Your task to perform on an android device: turn off priority inbox in the gmail app Image 0: 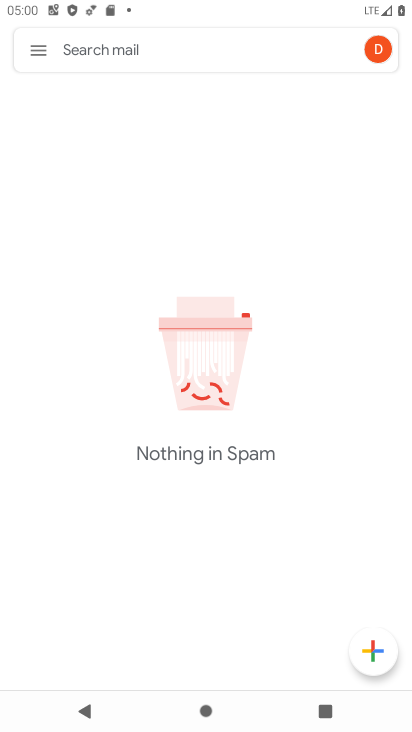
Step 0: press back button
Your task to perform on an android device: turn off priority inbox in the gmail app Image 1: 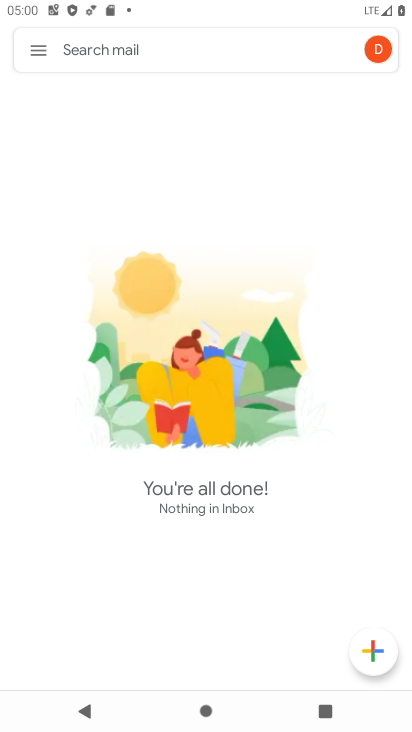
Step 1: press back button
Your task to perform on an android device: turn off priority inbox in the gmail app Image 2: 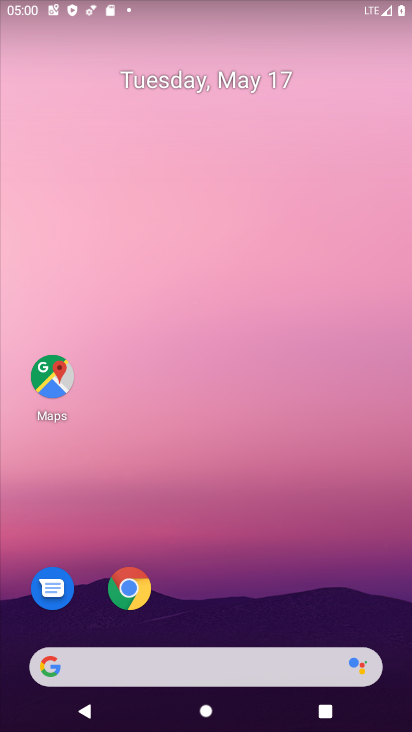
Step 2: drag from (261, 596) to (188, 86)
Your task to perform on an android device: turn off priority inbox in the gmail app Image 3: 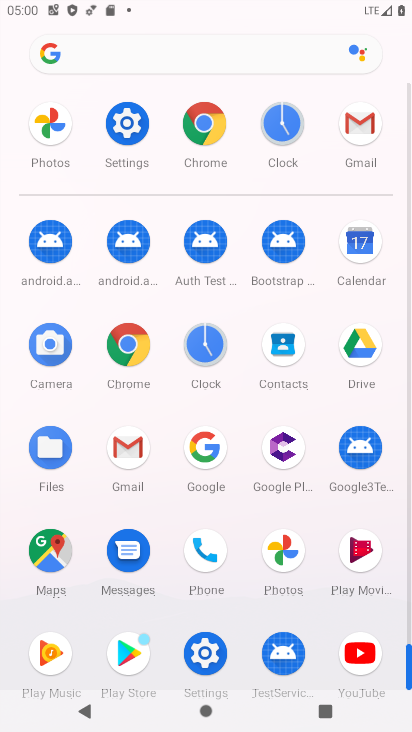
Step 3: click (358, 124)
Your task to perform on an android device: turn off priority inbox in the gmail app Image 4: 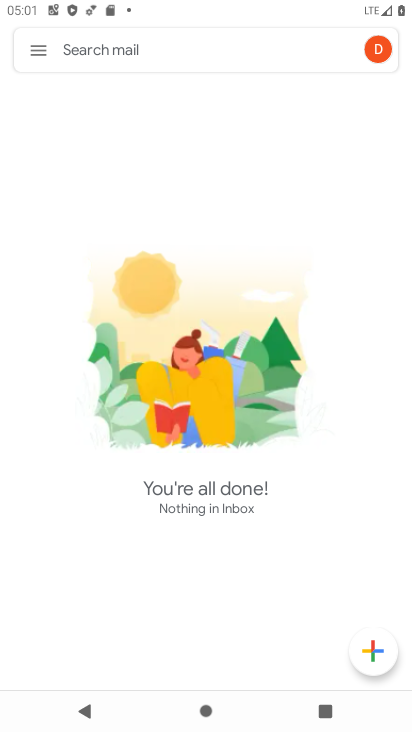
Step 4: click (41, 49)
Your task to perform on an android device: turn off priority inbox in the gmail app Image 5: 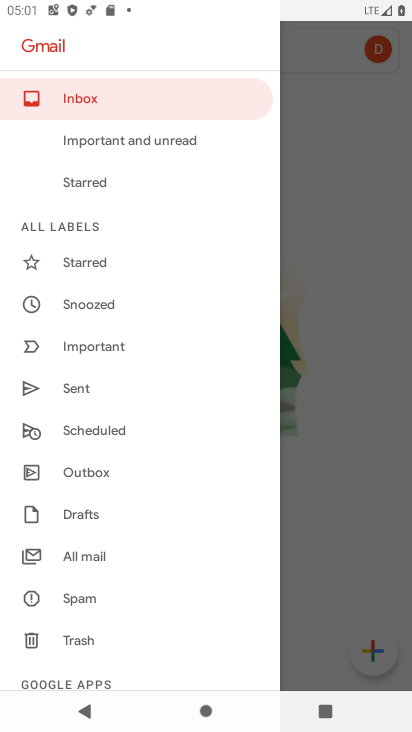
Step 5: drag from (114, 608) to (138, 541)
Your task to perform on an android device: turn off priority inbox in the gmail app Image 6: 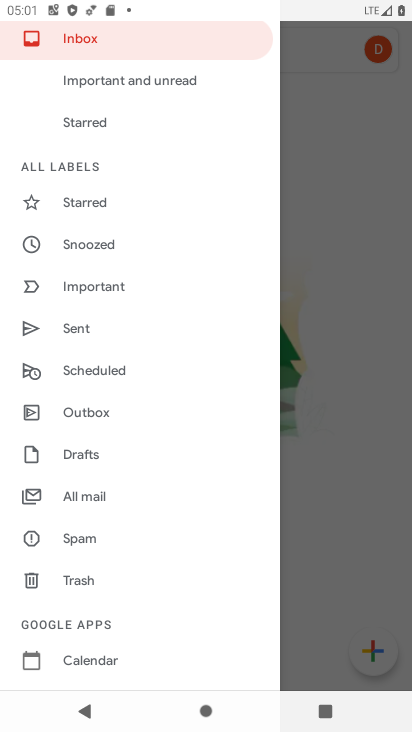
Step 6: drag from (101, 609) to (138, 546)
Your task to perform on an android device: turn off priority inbox in the gmail app Image 7: 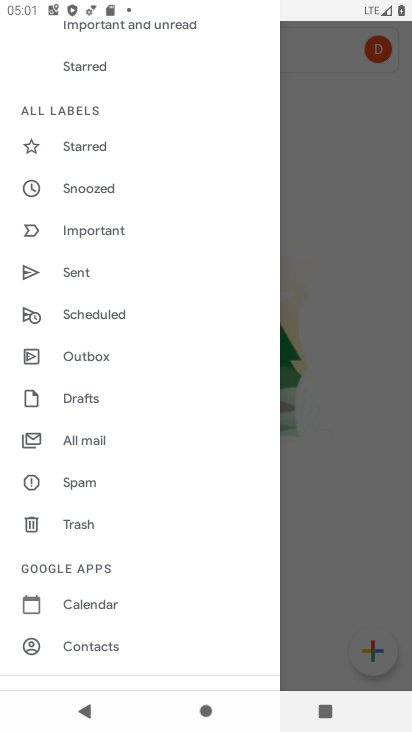
Step 7: drag from (111, 627) to (141, 570)
Your task to perform on an android device: turn off priority inbox in the gmail app Image 8: 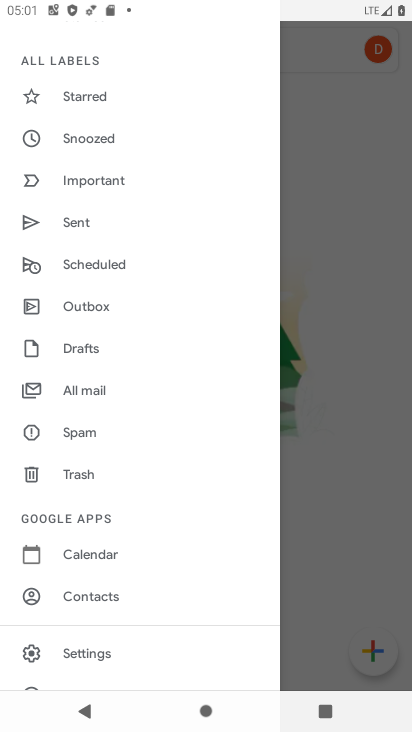
Step 8: click (93, 653)
Your task to perform on an android device: turn off priority inbox in the gmail app Image 9: 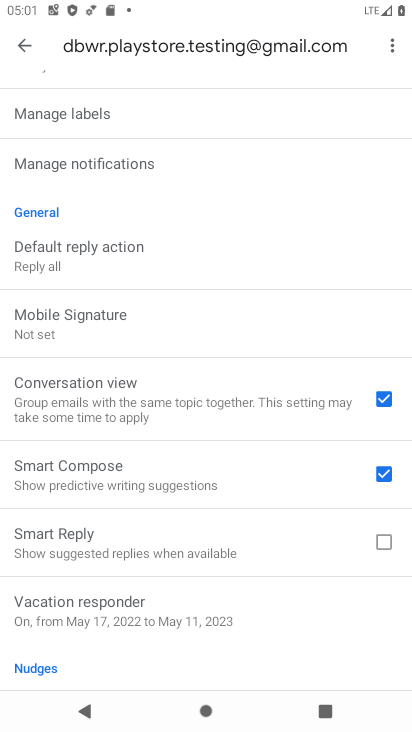
Step 9: drag from (175, 274) to (187, 427)
Your task to perform on an android device: turn off priority inbox in the gmail app Image 10: 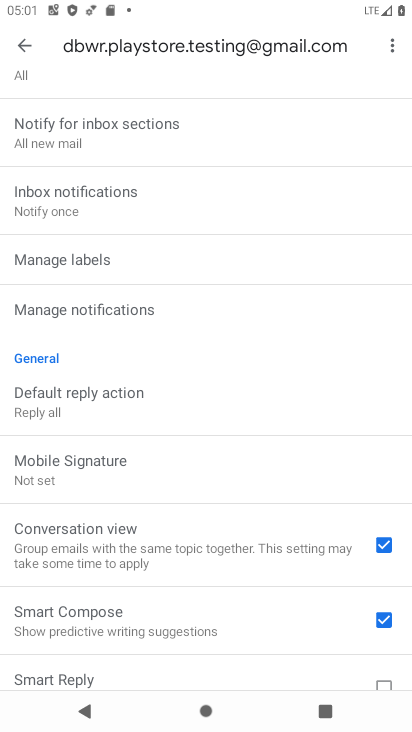
Step 10: drag from (150, 186) to (163, 296)
Your task to perform on an android device: turn off priority inbox in the gmail app Image 11: 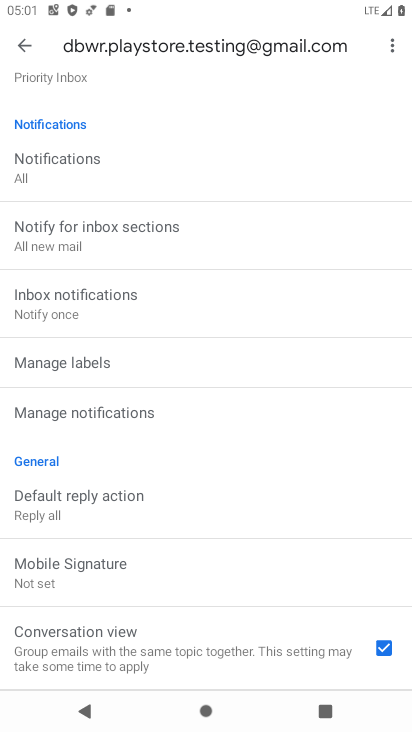
Step 11: drag from (152, 177) to (155, 310)
Your task to perform on an android device: turn off priority inbox in the gmail app Image 12: 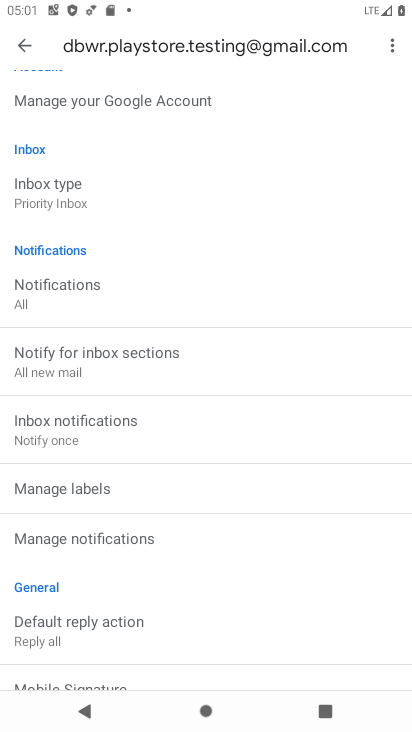
Step 12: click (76, 193)
Your task to perform on an android device: turn off priority inbox in the gmail app Image 13: 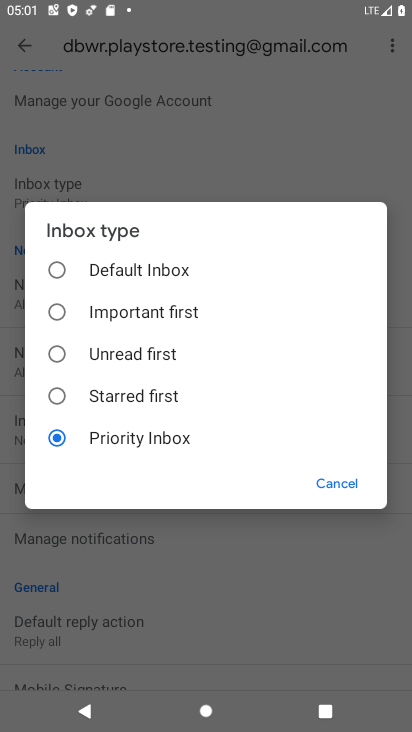
Step 13: click (58, 264)
Your task to perform on an android device: turn off priority inbox in the gmail app Image 14: 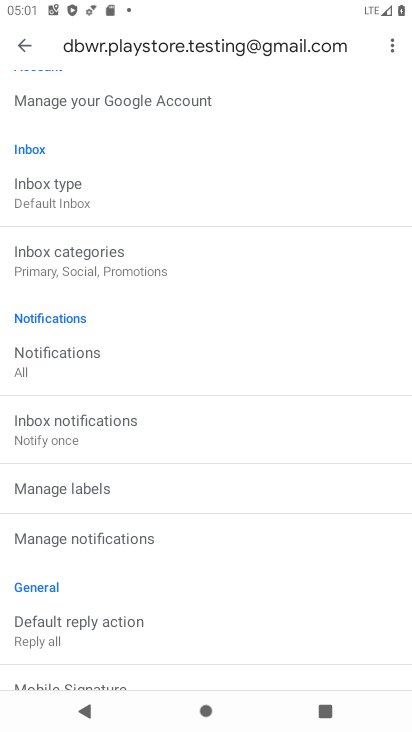
Step 14: task complete